Your task to perform on an android device: open chrome privacy settings Image 0: 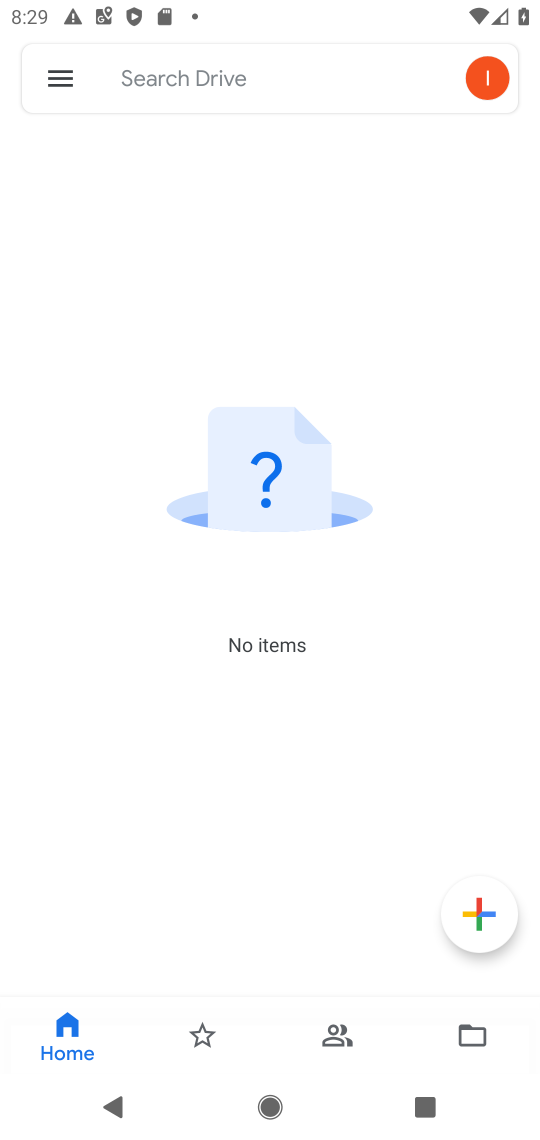
Step 0: press home button
Your task to perform on an android device: open chrome privacy settings Image 1: 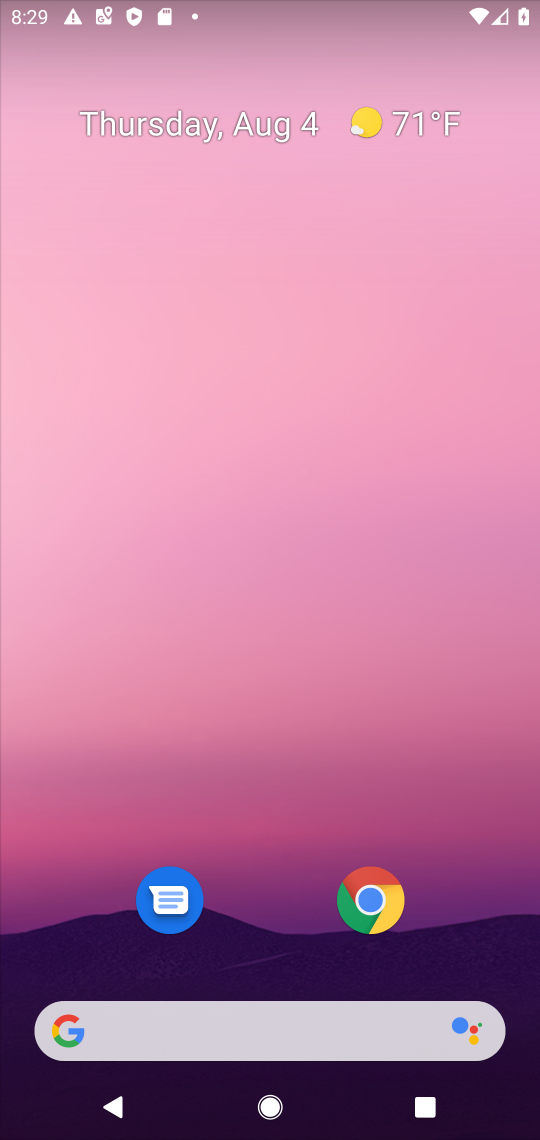
Step 1: click (372, 899)
Your task to perform on an android device: open chrome privacy settings Image 2: 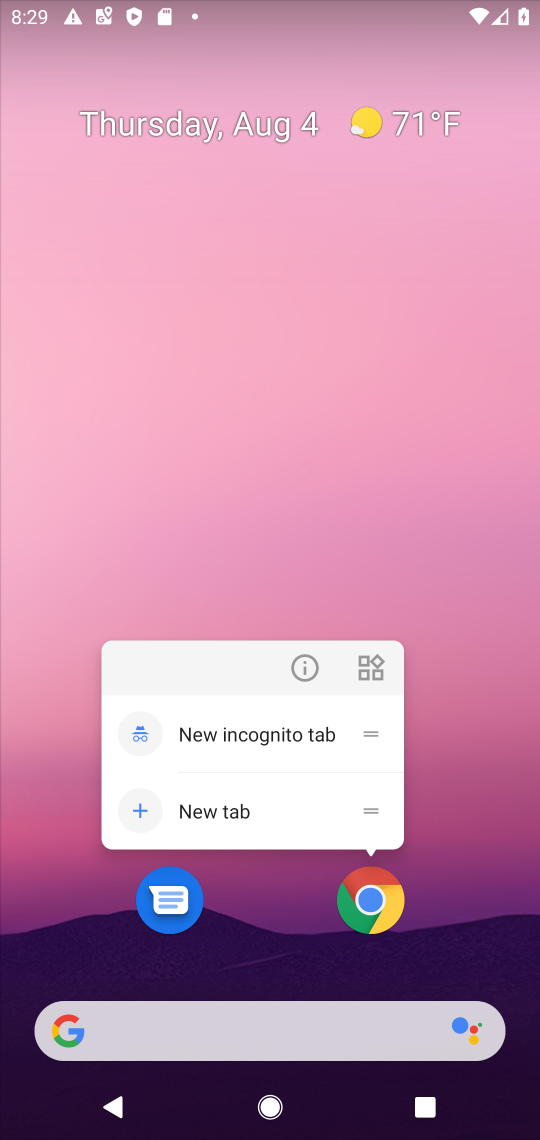
Step 2: click (366, 923)
Your task to perform on an android device: open chrome privacy settings Image 3: 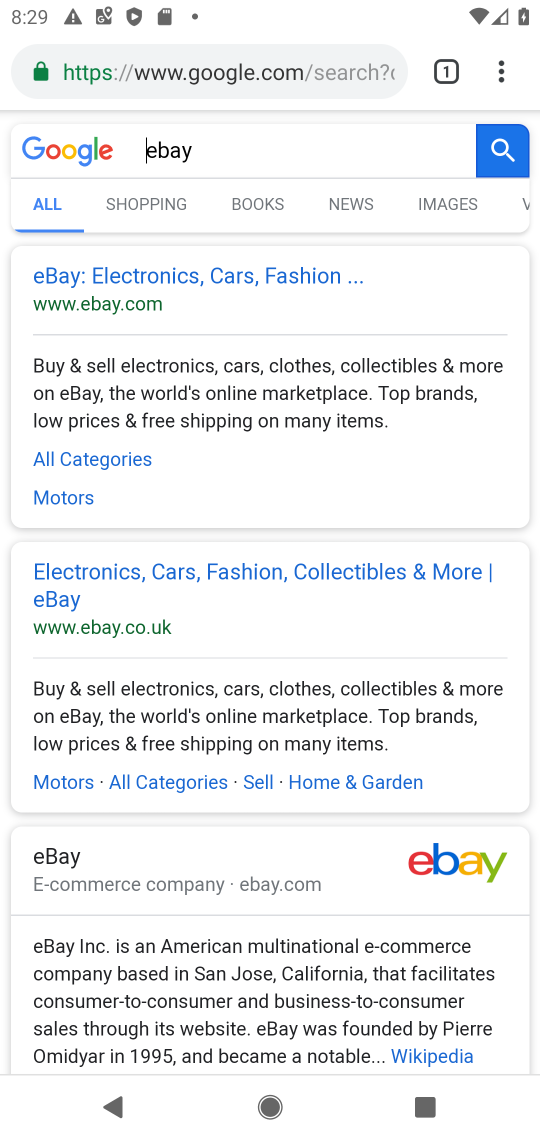
Step 3: click (509, 74)
Your task to perform on an android device: open chrome privacy settings Image 4: 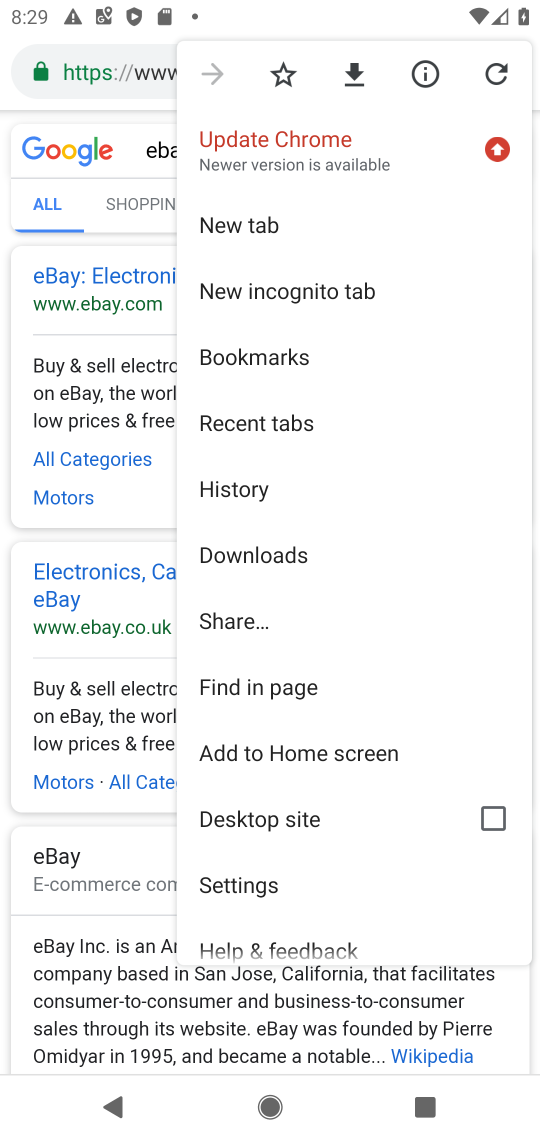
Step 4: click (256, 887)
Your task to perform on an android device: open chrome privacy settings Image 5: 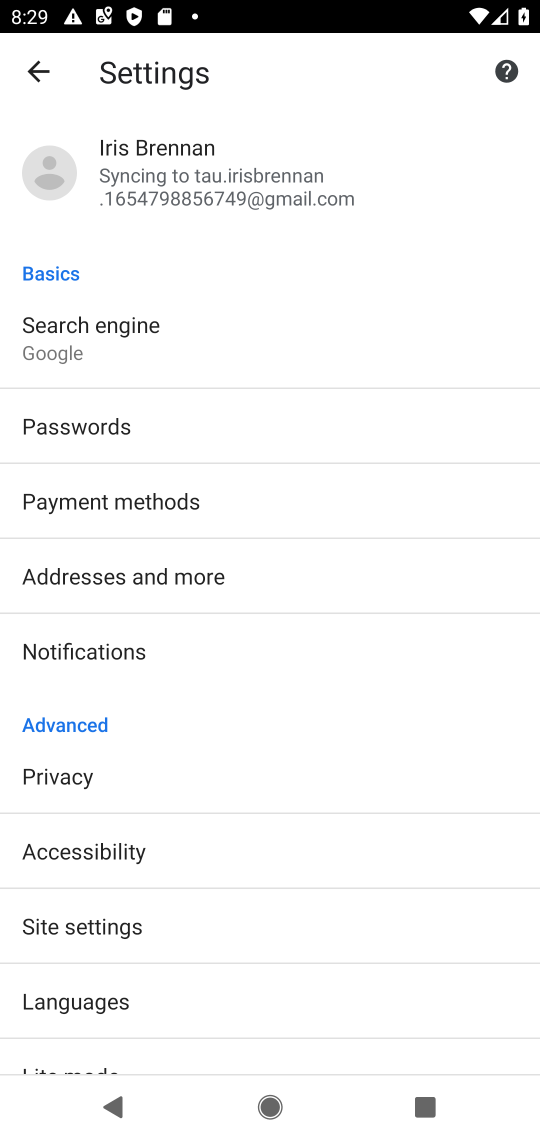
Step 5: click (83, 781)
Your task to perform on an android device: open chrome privacy settings Image 6: 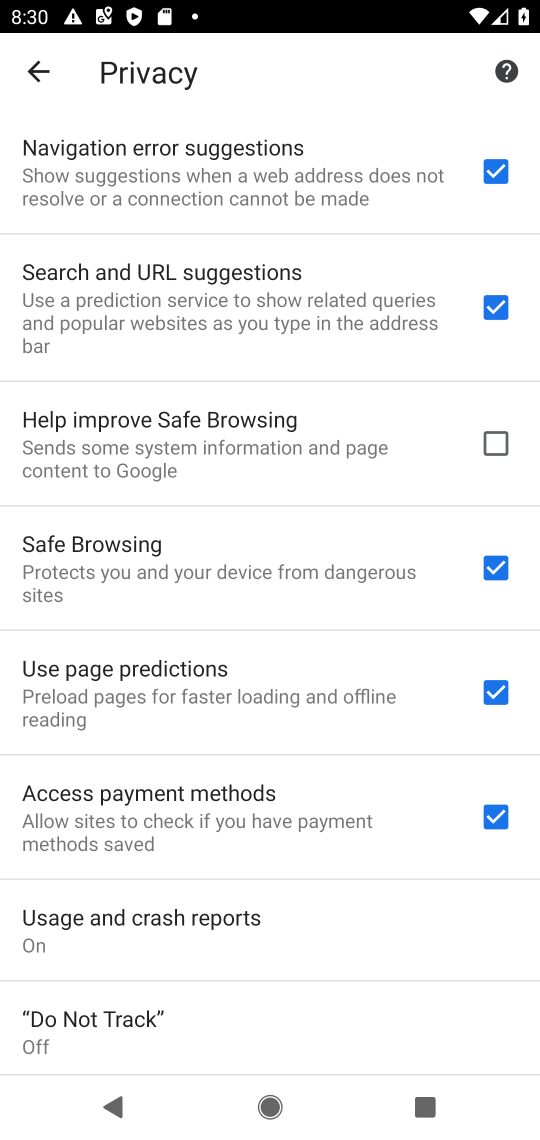
Step 6: task complete